Your task to perform on an android device: turn off data saver in the chrome app Image 0: 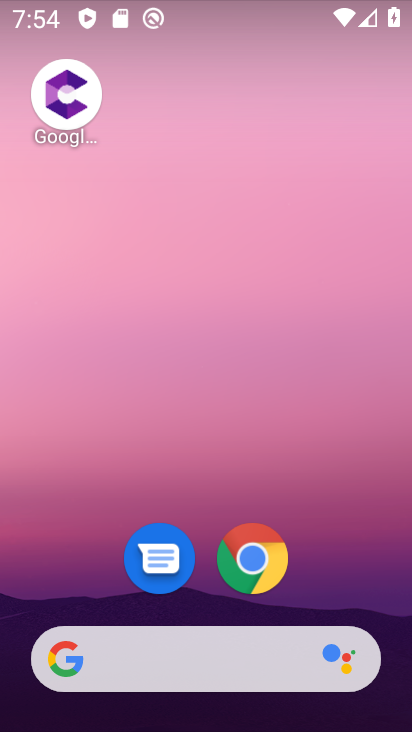
Step 0: click (258, 559)
Your task to perform on an android device: turn off data saver in the chrome app Image 1: 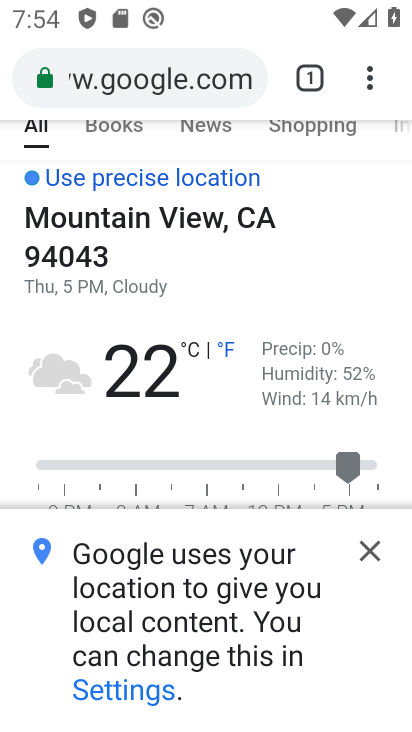
Step 1: click (375, 76)
Your task to perform on an android device: turn off data saver in the chrome app Image 2: 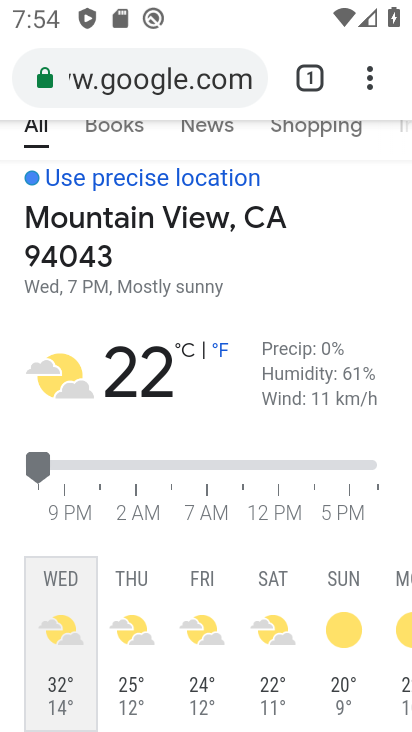
Step 2: click (371, 82)
Your task to perform on an android device: turn off data saver in the chrome app Image 3: 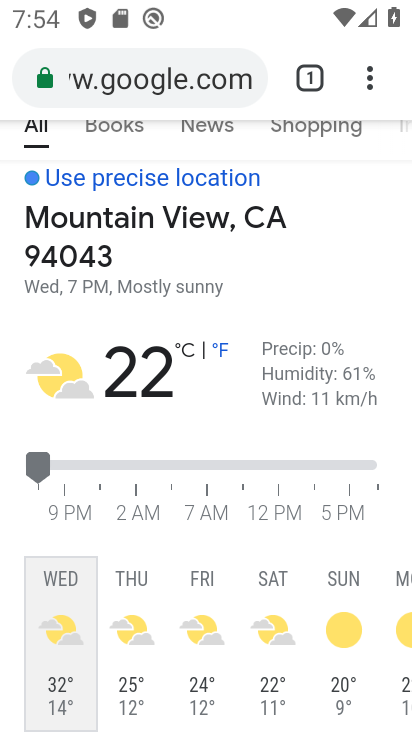
Step 3: click (370, 88)
Your task to perform on an android device: turn off data saver in the chrome app Image 4: 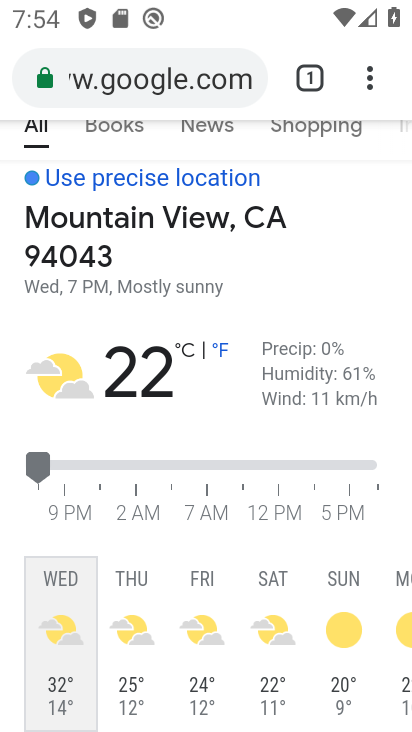
Step 4: click (360, 89)
Your task to perform on an android device: turn off data saver in the chrome app Image 5: 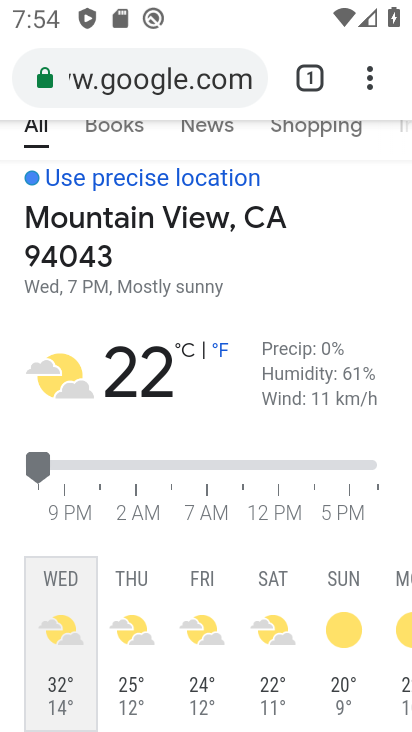
Step 5: click (360, 91)
Your task to perform on an android device: turn off data saver in the chrome app Image 6: 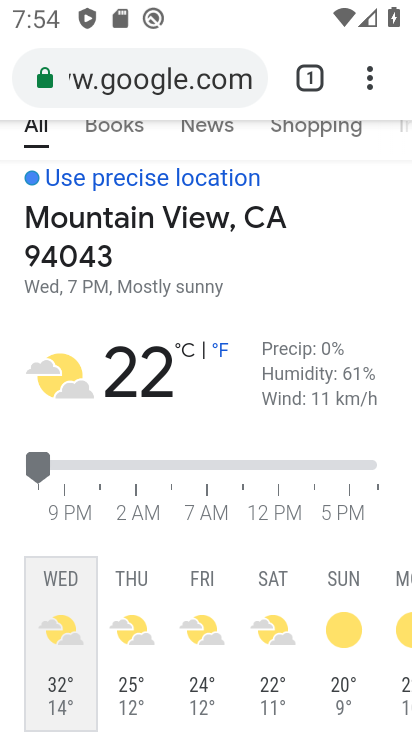
Step 6: click (363, 91)
Your task to perform on an android device: turn off data saver in the chrome app Image 7: 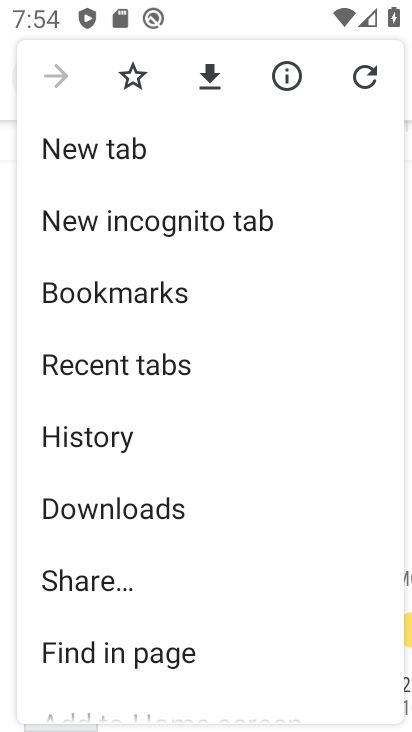
Step 7: drag from (306, 408) to (372, 152)
Your task to perform on an android device: turn off data saver in the chrome app Image 8: 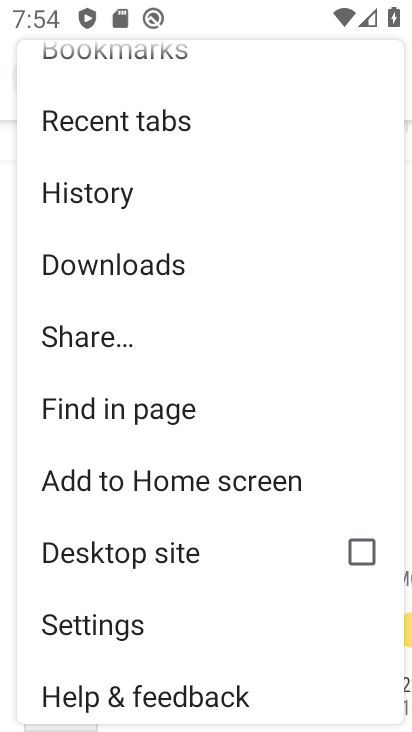
Step 8: click (155, 630)
Your task to perform on an android device: turn off data saver in the chrome app Image 9: 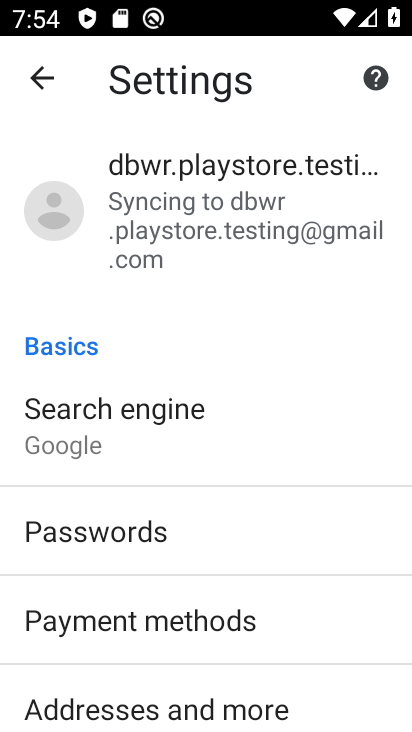
Step 9: drag from (256, 641) to (317, 205)
Your task to perform on an android device: turn off data saver in the chrome app Image 10: 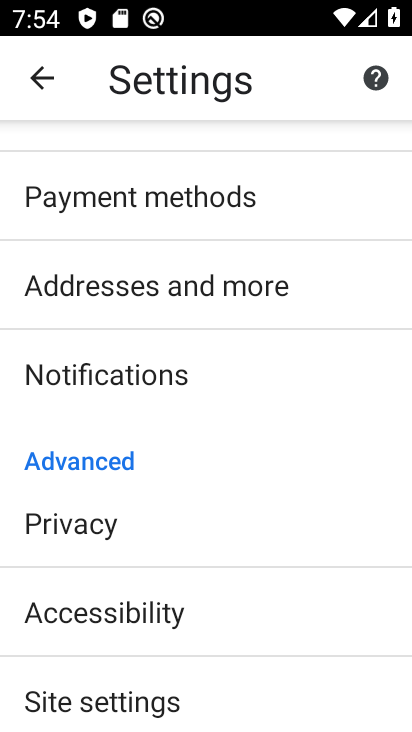
Step 10: drag from (281, 583) to (341, 102)
Your task to perform on an android device: turn off data saver in the chrome app Image 11: 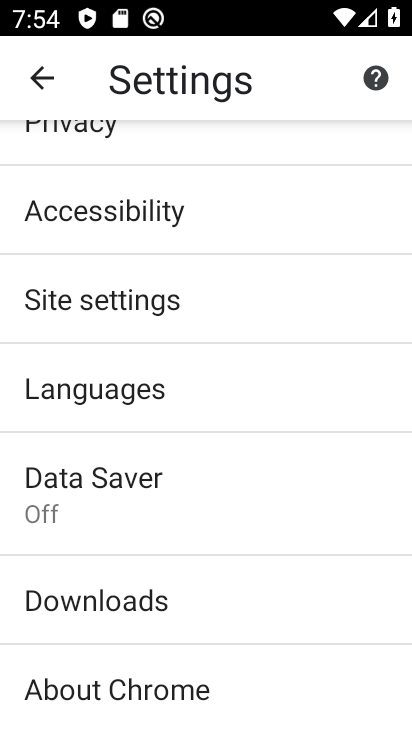
Step 11: click (215, 509)
Your task to perform on an android device: turn off data saver in the chrome app Image 12: 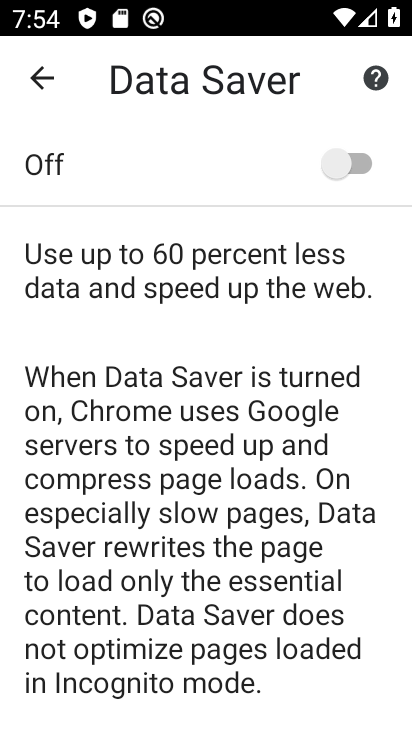
Step 12: task complete